Your task to perform on an android device: Open eBay Image 0: 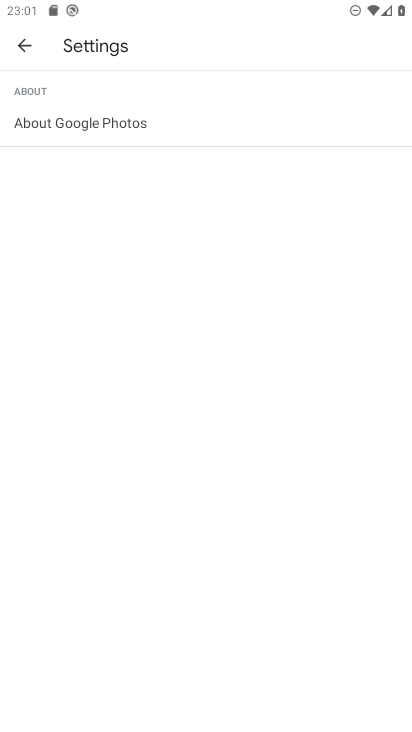
Step 0: click (27, 30)
Your task to perform on an android device: Open eBay Image 1: 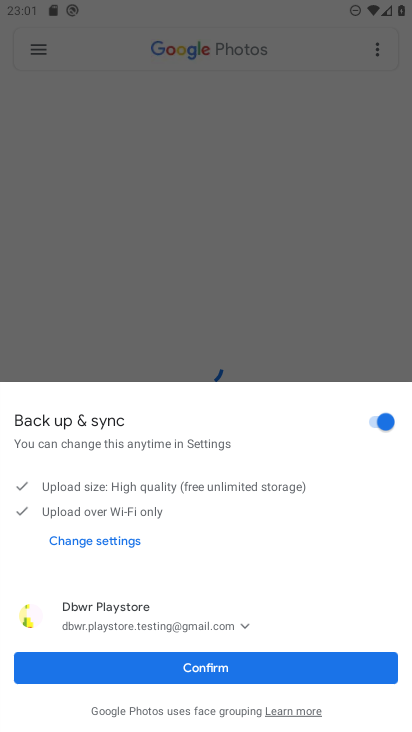
Step 1: press back button
Your task to perform on an android device: Open eBay Image 2: 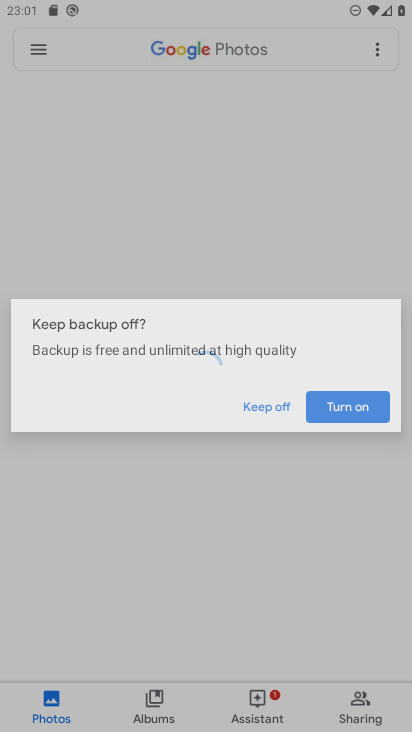
Step 2: click (221, 672)
Your task to perform on an android device: Open eBay Image 3: 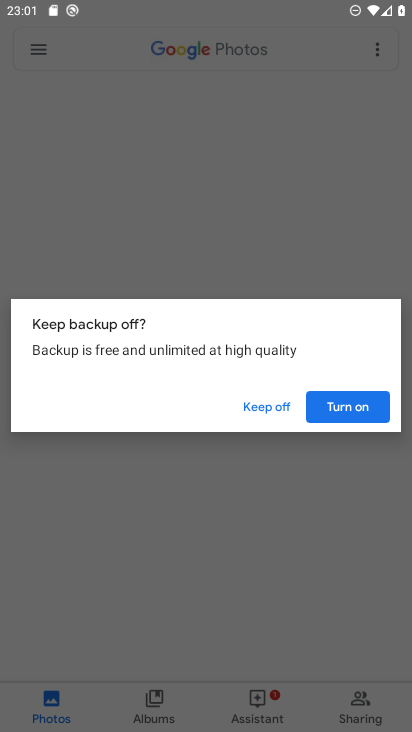
Step 3: click (282, 407)
Your task to perform on an android device: Open eBay Image 4: 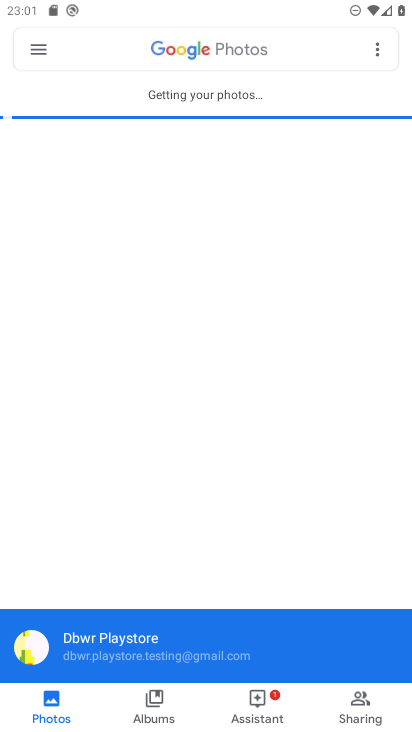
Step 4: press home button
Your task to perform on an android device: Open eBay Image 5: 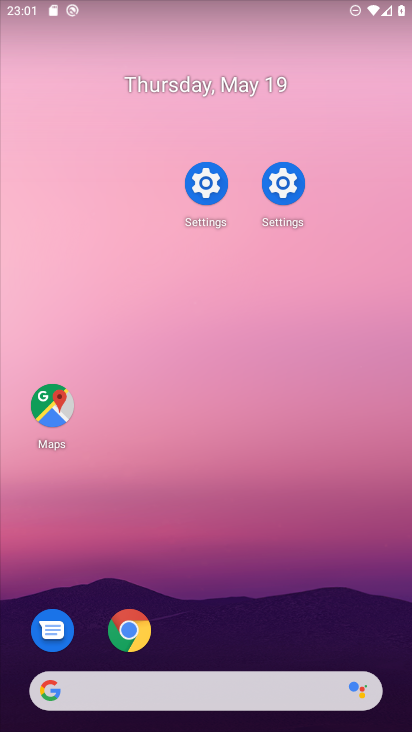
Step 5: drag from (217, 628) to (111, 1)
Your task to perform on an android device: Open eBay Image 6: 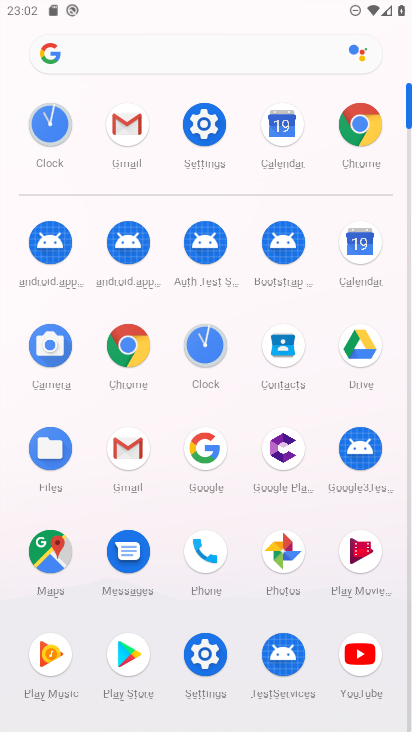
Step 6: click (355, 132)
Your task to perform on an android device: Open eBay Image 7: 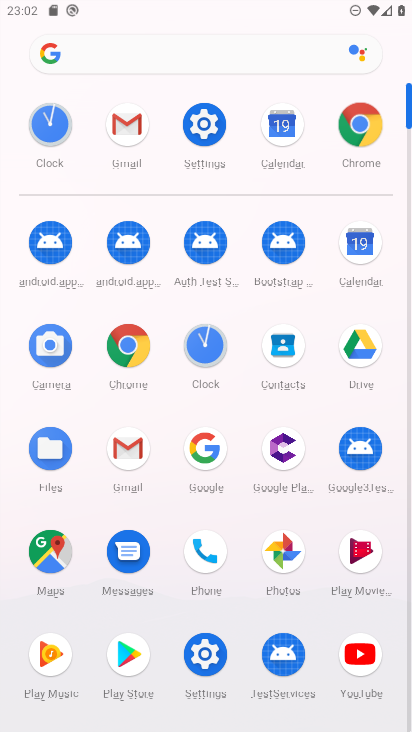
Step 7: click (355, 131)
Your task to perform on an android device: Open eBay Image 8: 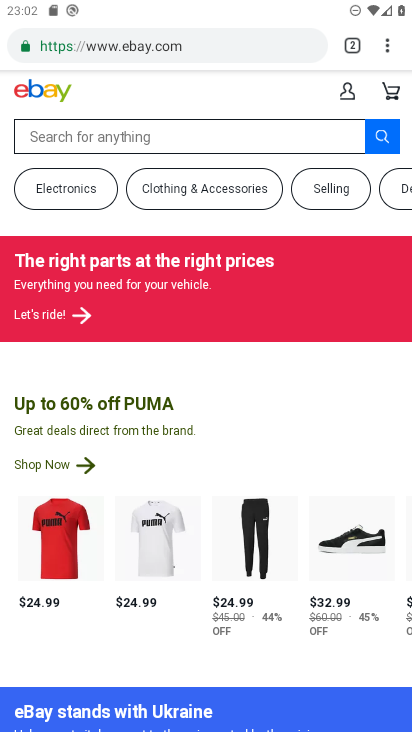
Step 8: task complete